Your task to perform on an android device: Open calendar and show me the second week of next month Image 0: 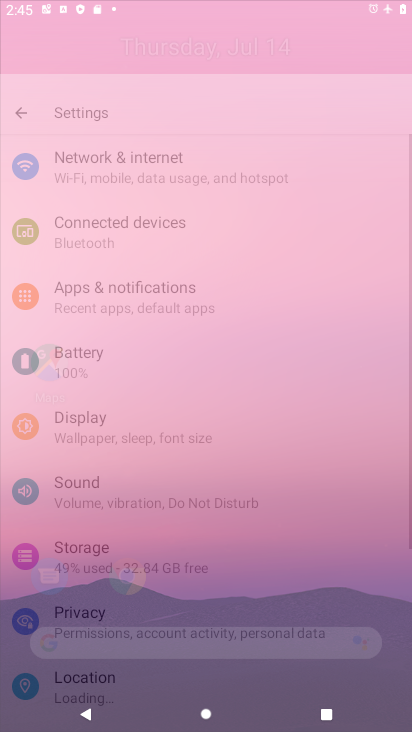
Step 0: drag from (390, 617) to (360, 138)
Your task to perform on an android device: Open calendar and show me the second week of next month Image 1: 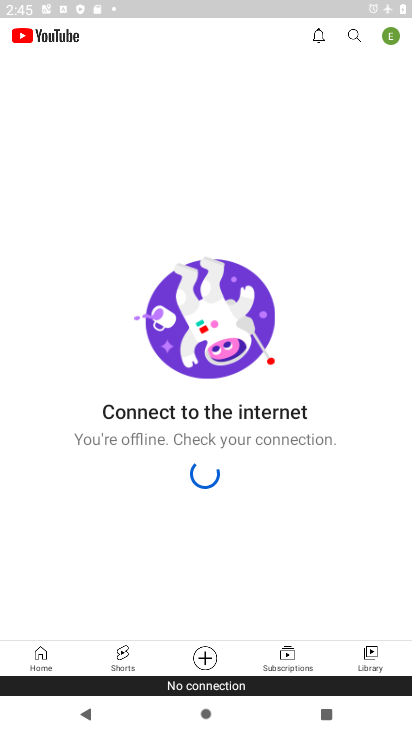
Step 1: press home button
Your task to perform on an android device: Open calendar and show me the second week of next month Image 2: 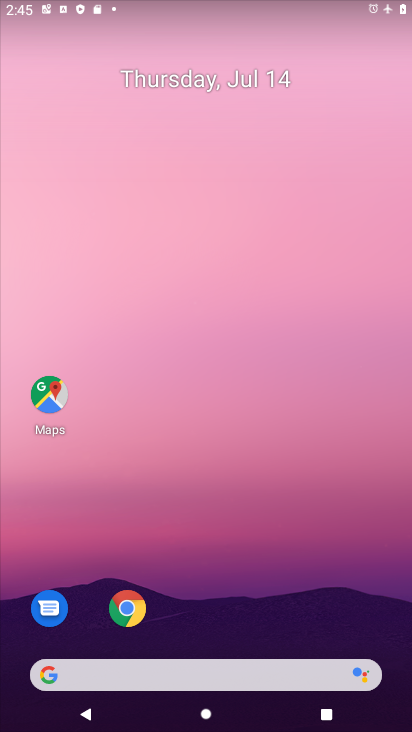
Step 2: drag from (380, 624) to (334, 112)
Your task to perform on an android device: Open calendar and show me the second week of next month Image 3: 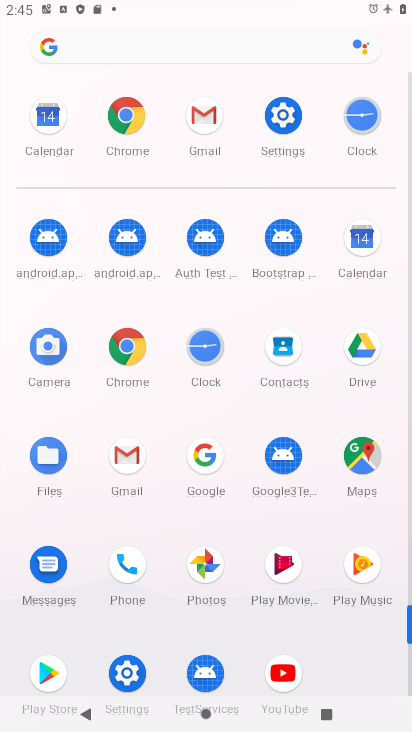
Step 3: click (359, 239)
Your task to perform on an android device: Open calendar and show me the second week of next month Image 4: 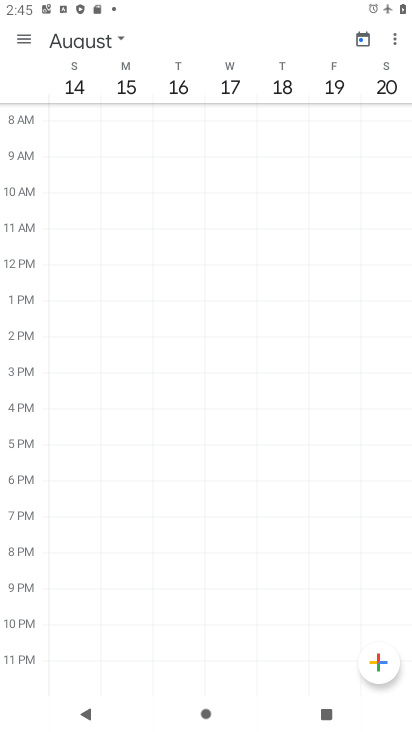
Step 4: task complete